Your task to perform on an android device: turn on the 12-hour format for clock Image 0: 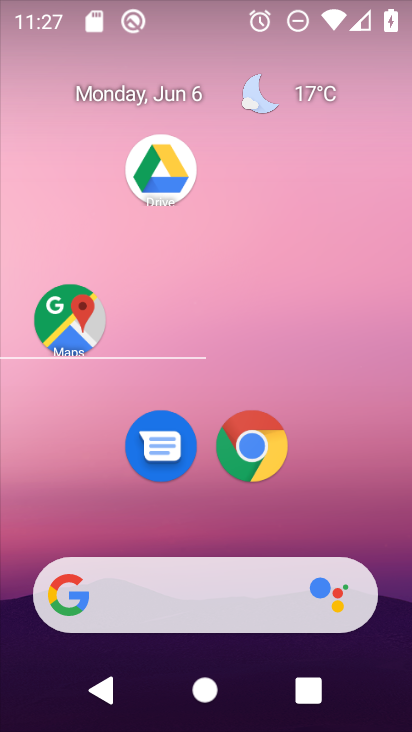
Step 0: drag from (190, 554) to (319, 134)
Your task to perform on an android device: turn on the 12-hour format for clock Image 1: 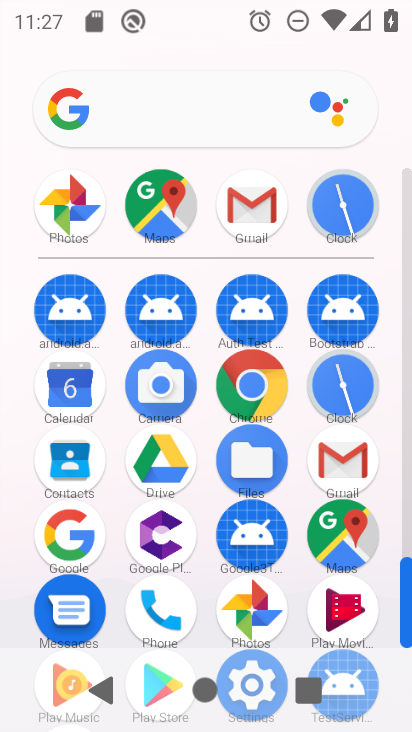
Step 1: click (337, 218)
Your task to perform on an android device: turn on the 12-hour format for clock Image 2: 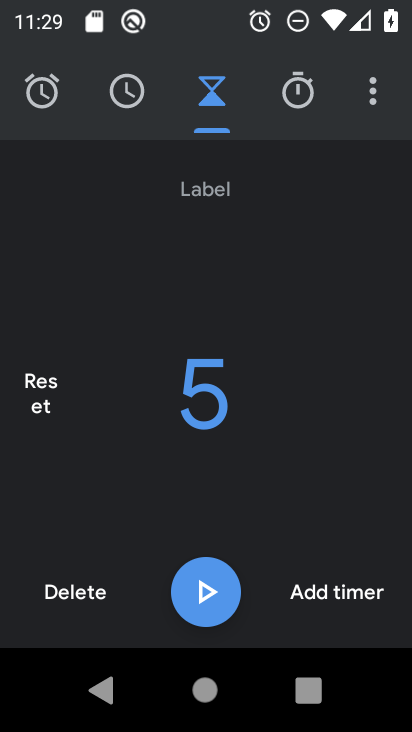
Step 2: task complete